Your task to perform on an android device: Open Wikipedia Image 0: 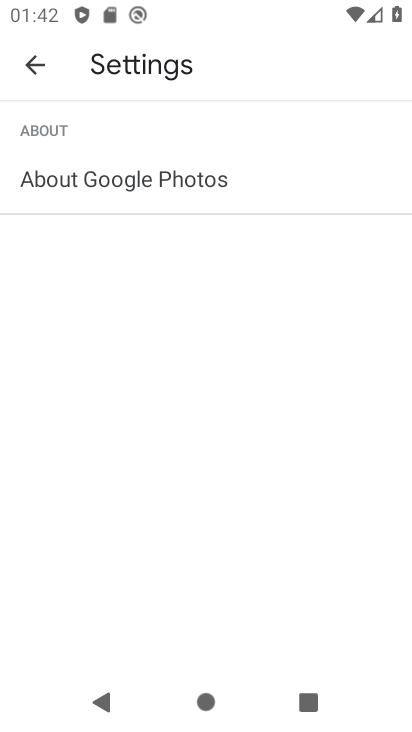
Step 0: click (187, 387)
Your task to perform on an android device: Open Wikipedia Image 1: 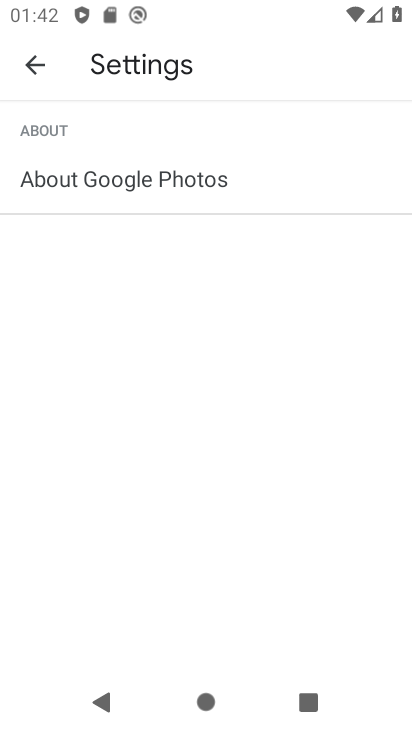
Step 1: press home button
Your task to perform on an android device: Open Wikipedia Image 2: 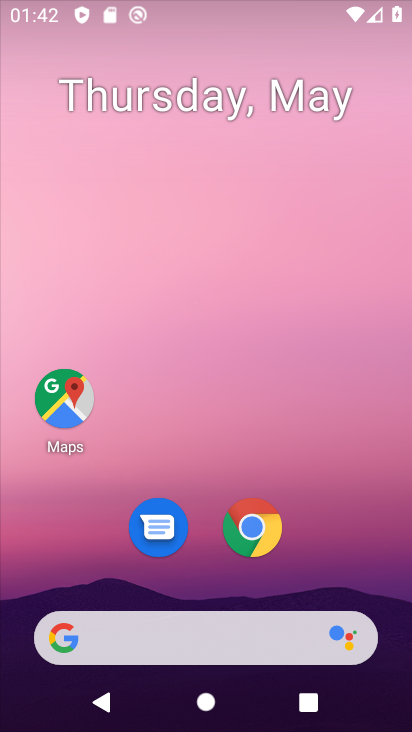
Step 2: drag from (186, 436) to (34, 59)
Your task to perform on an android device: Open Wikipedia Image 3: 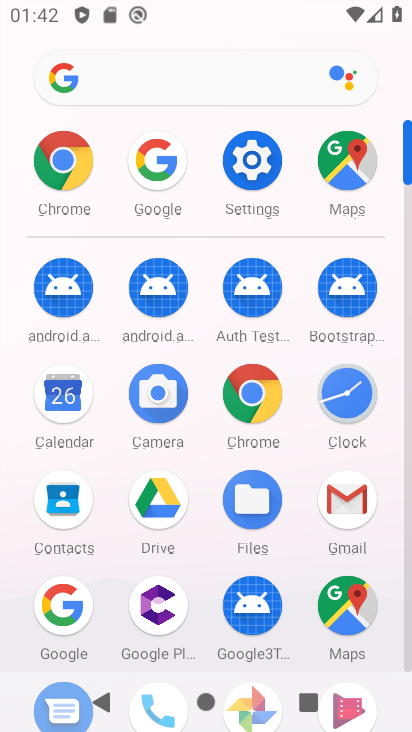
Step 3: click (139, 66)
Your task to perform on an android device: Open Wikipedia Image 4: 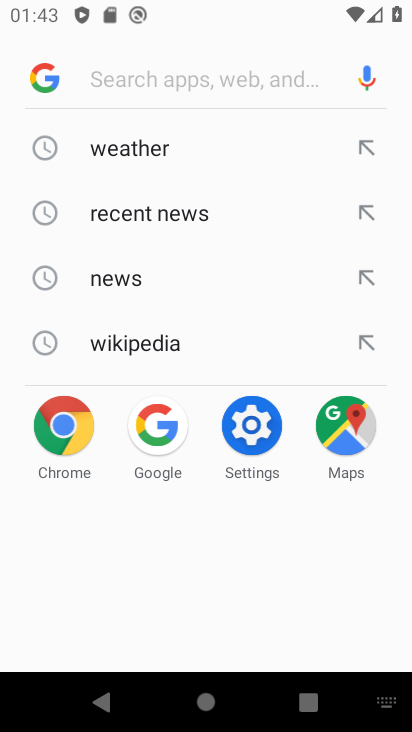
Step 4: click (131, 357)
Your task to perform on an android device: Open Wikipedia Image 5: 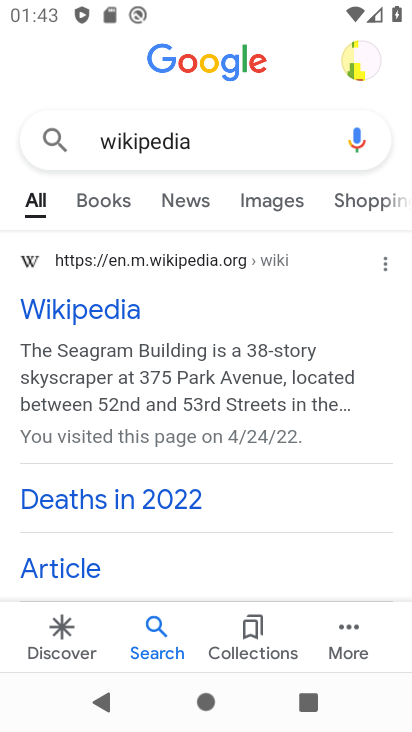
Step 5: click (90, 326)
Your task to perform on an android device: Open Wikipedia Image 6: 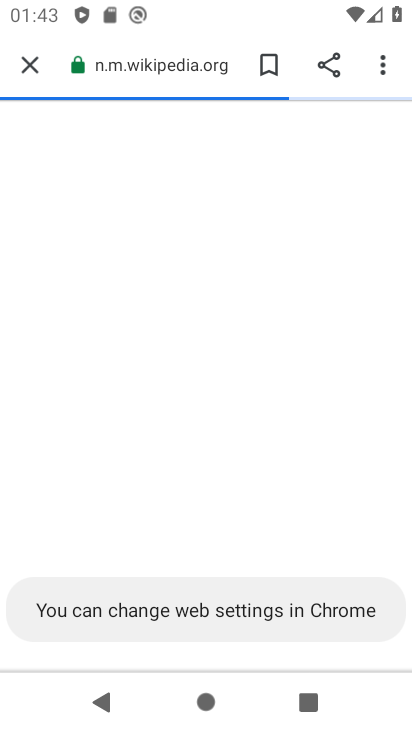
Step 6: task complete